Your task to perform on an android device: Is it going to rain this weekend? Image 0: 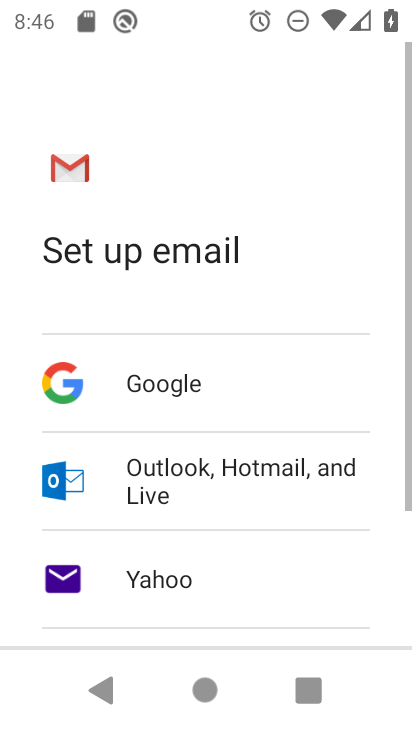
Step 0: press home button
Your task to perform on an android device: Is it going to rain this weekend? Image 1: 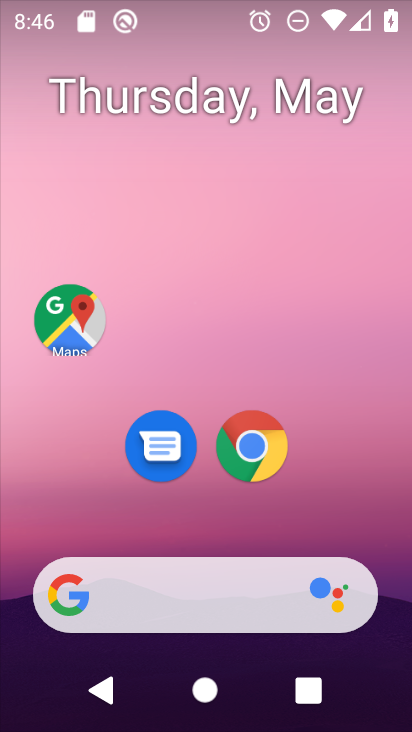
Step 1: drag from (361, 509) to (408, 154)
Your task to perform on an android device: Is it going to rain this weekend? Image 2: 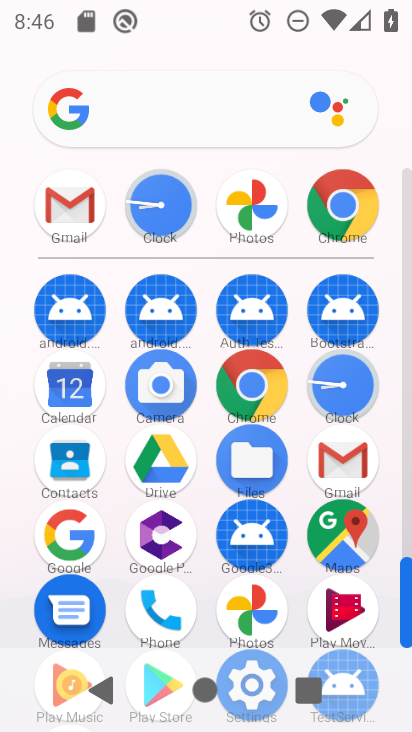
Step 2: click (246, 397)
Your task to perform on an android device: Is it going to rain this weekend? Image 3: 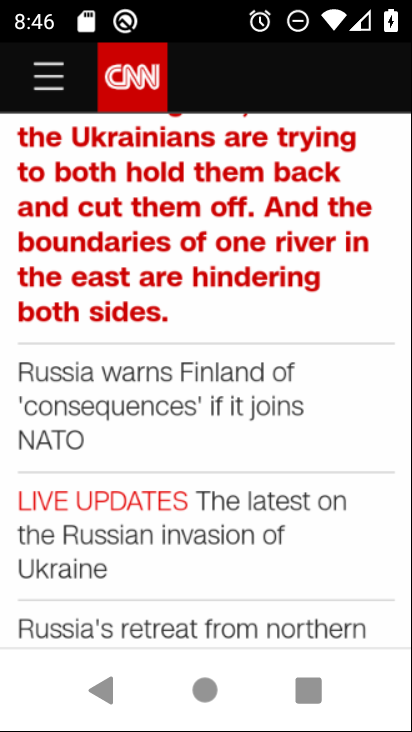
Step 3: drag from (242, 95) to (232, 538)
Your task to perform on an android device: Is it going to rain this weekend? Image 4: 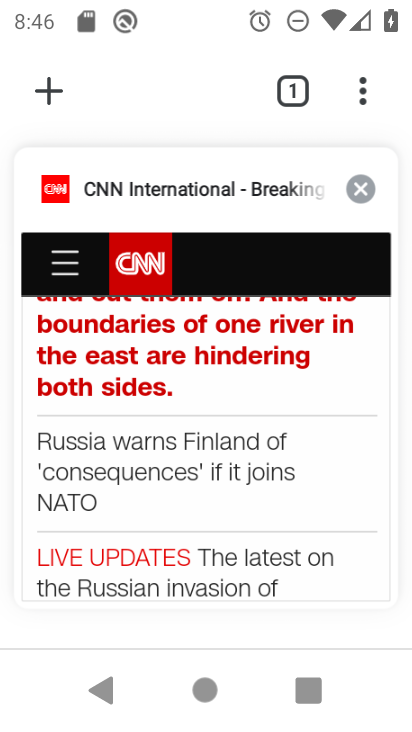
Step 4: click (41, 75)
Your task to perform on an android device: Is it going to rain this weekend? Image 5: 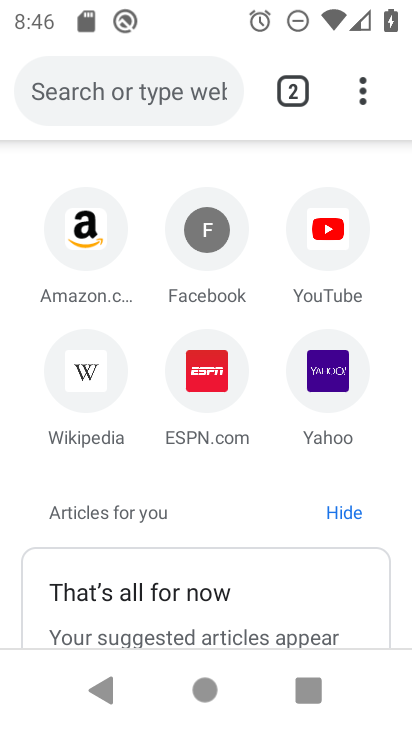
Step 5: click (195, 86)
Your task to perform on an android device: Is it going to rain this weekend? Image 6: 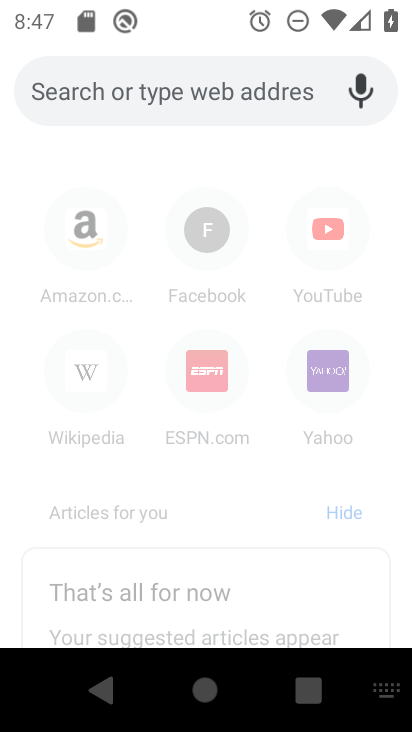
Step 6: type "is it going to rain this weekend"
Your task to perform on an android device: Is it going to rain this weekend? Image 7: 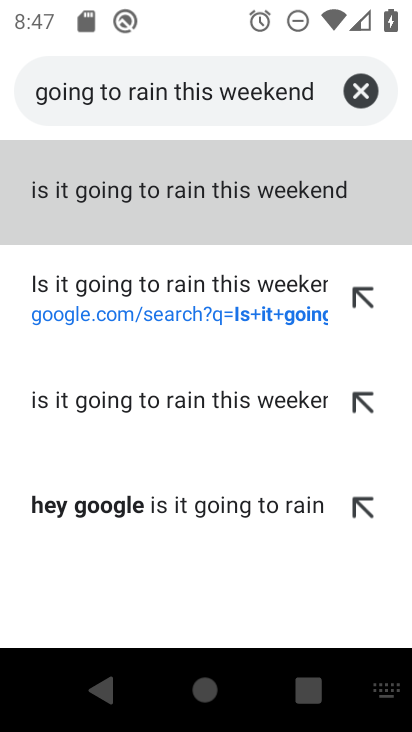
Step 7: click (218, 180)
Your task to perform on an android device: Is it going to rain this weekend? Image 8: 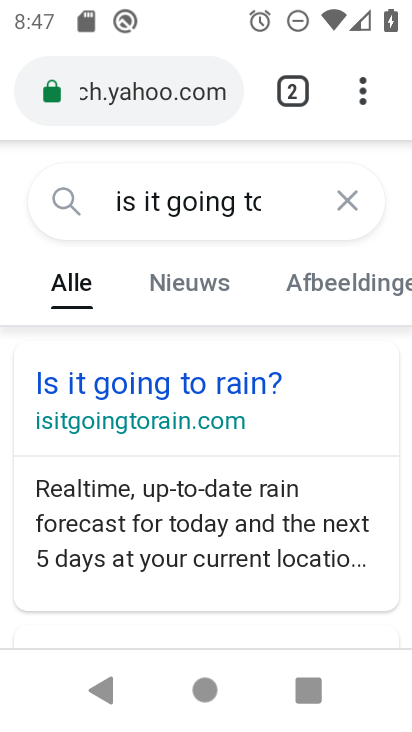
Step 8: drag from (210, 494) to (187, 246)
Your task to perform on an android device: Is it going to rain this weekend? Image 9: 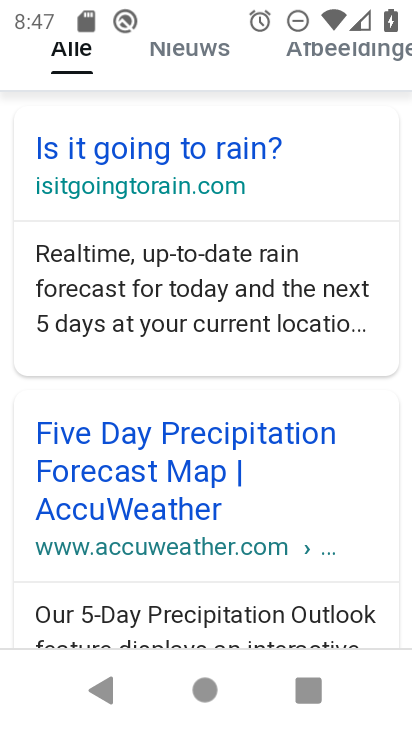
Step 9: click (182, 474)
Your task to perform on an android device: Is it going to rain this weekend? Image 10: 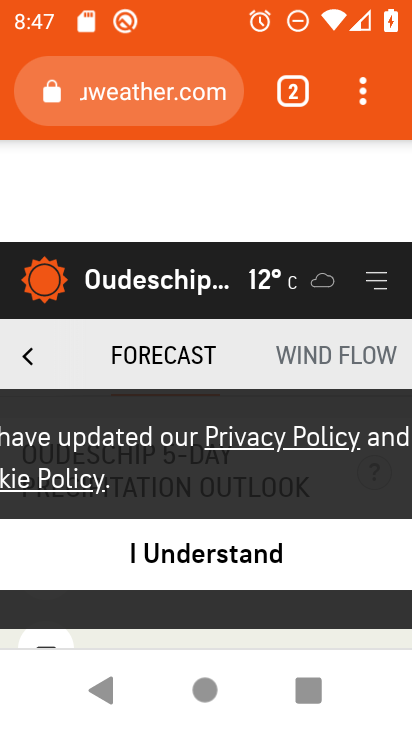
Step 10: drag from (268, 368) to (249, 97)
Your task to perform on an android device: Is it going to rain this weekend? Image 11: 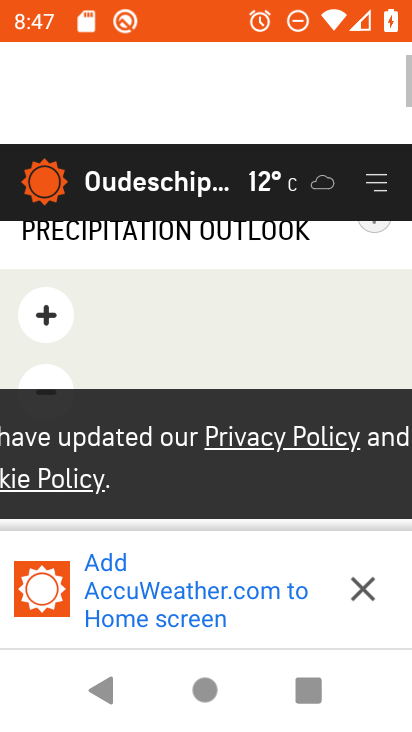
Step 11: click (363, 590)
Your task to perform on an android device: Is it going to rain this weekend? Image 12: 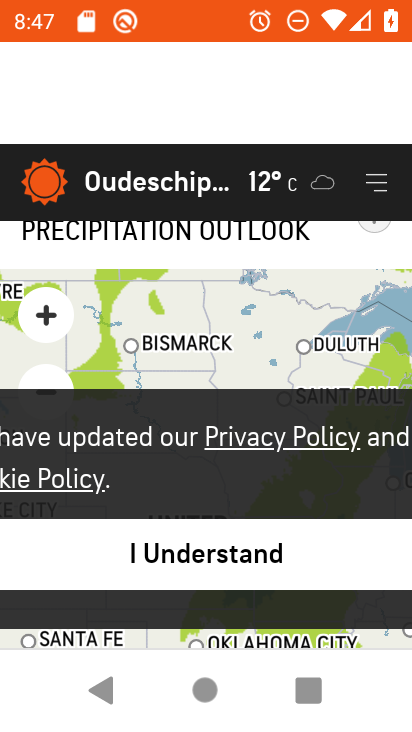
Step 12: task complete